Your task to perform on an android device: uninstall "Facebook" Image 0: 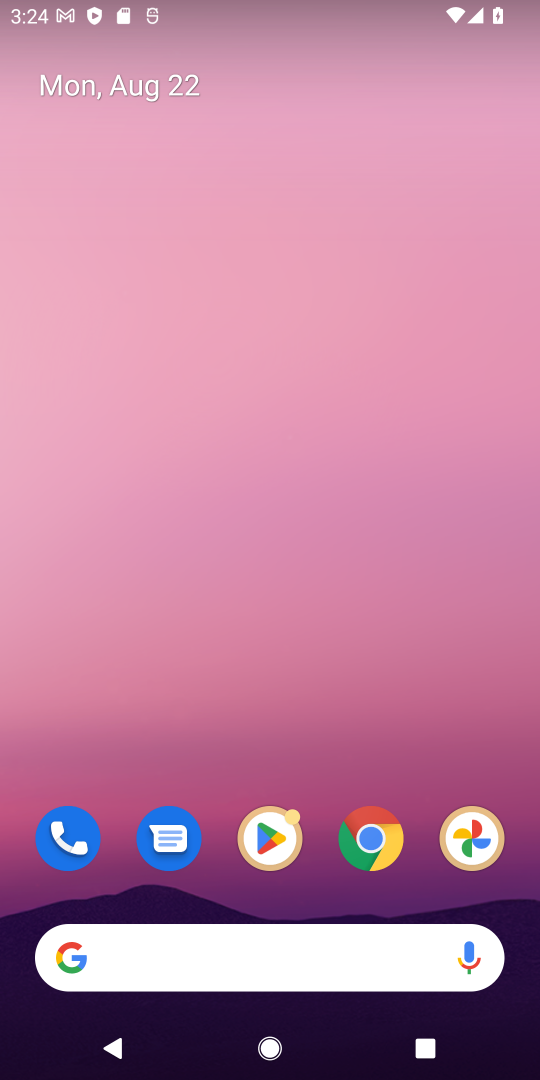
Step 0: click (274, 829)
Your task to perform on an android device: uninstall "Facebook" Image 1: 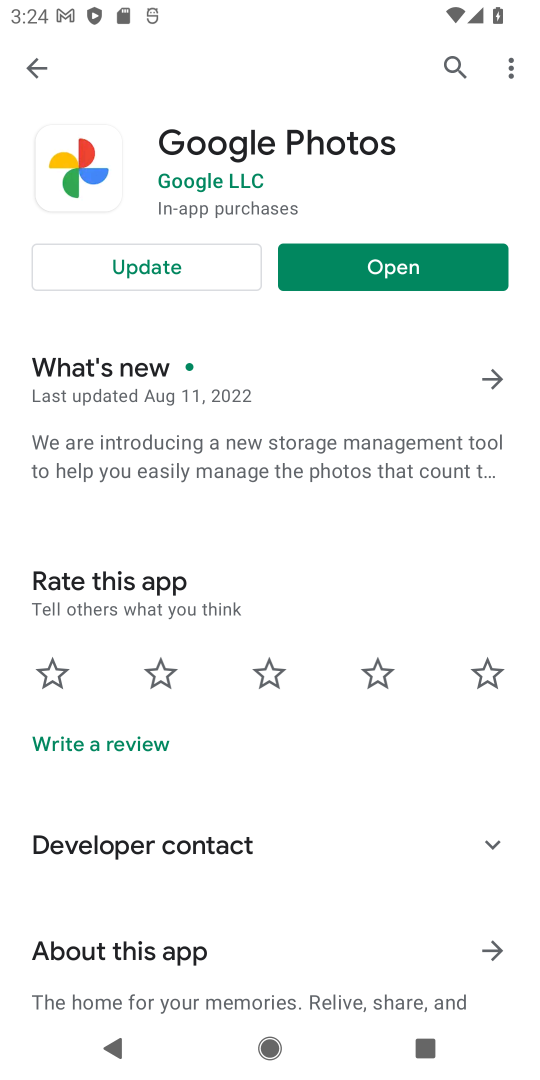
Step 1: click (459, 51)
Your task to perform on an android device: uninstall "Facebook" Image 2: 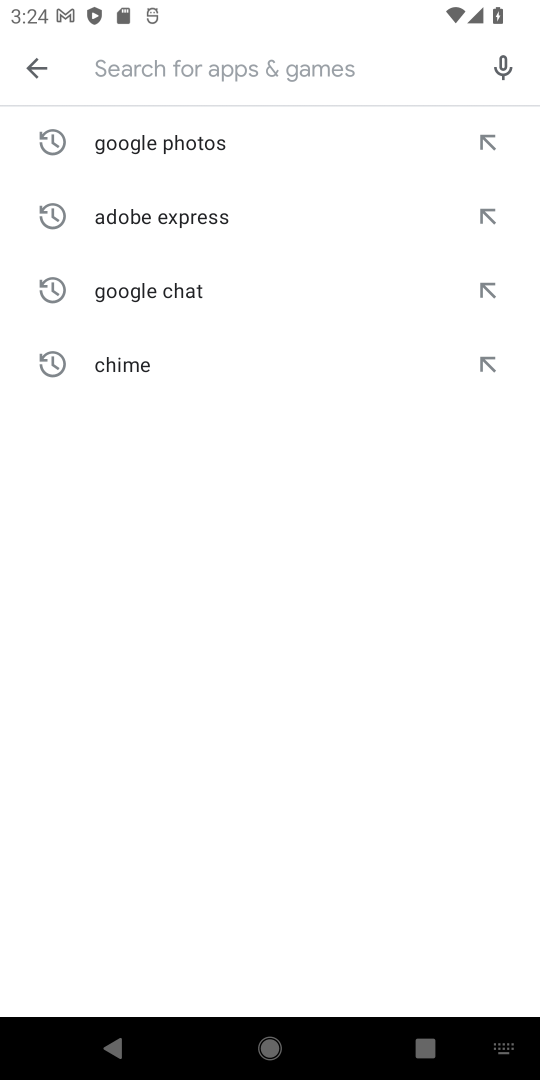
Step 2: click (175, 66)
Your task to perform on an android device: uninstall "Facebook" Image 3: 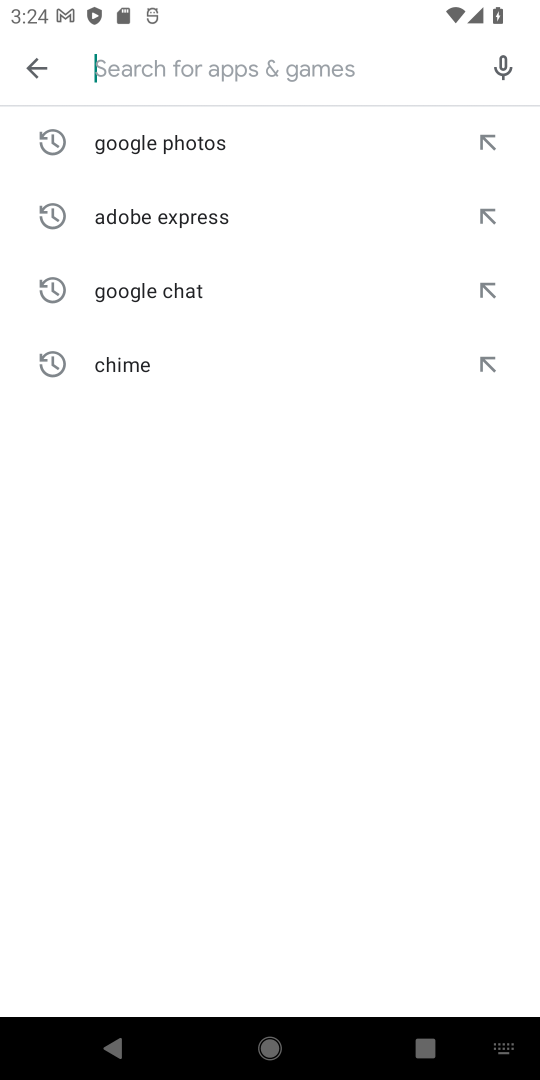
Step 3: type "Facebook"
Your task to perform on an android device: uninstall "Facebook" Image 4: 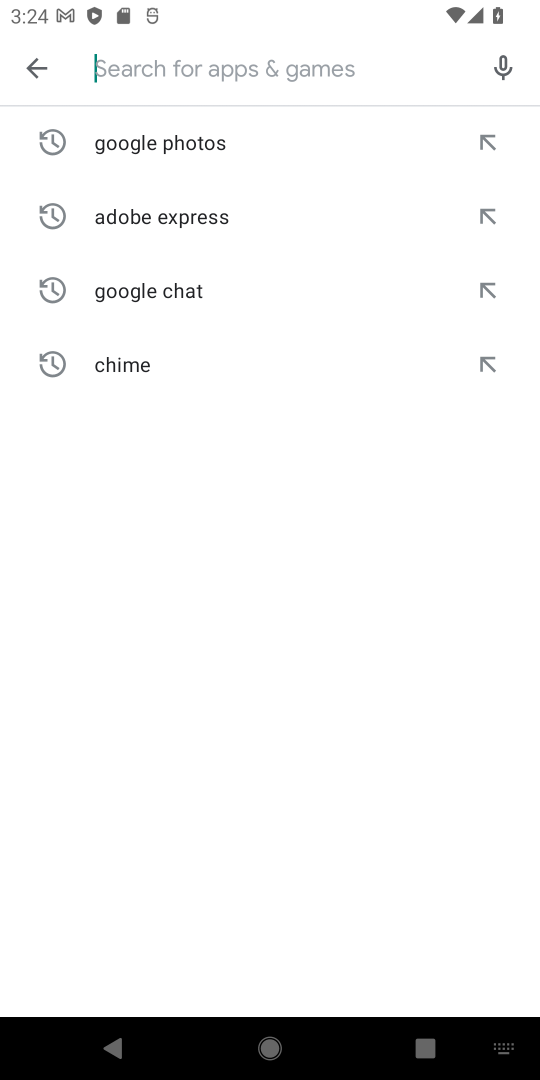
Step 4: click (185, 622)
Your task to perform on an android device: uninstall "Facebook" Image 5: 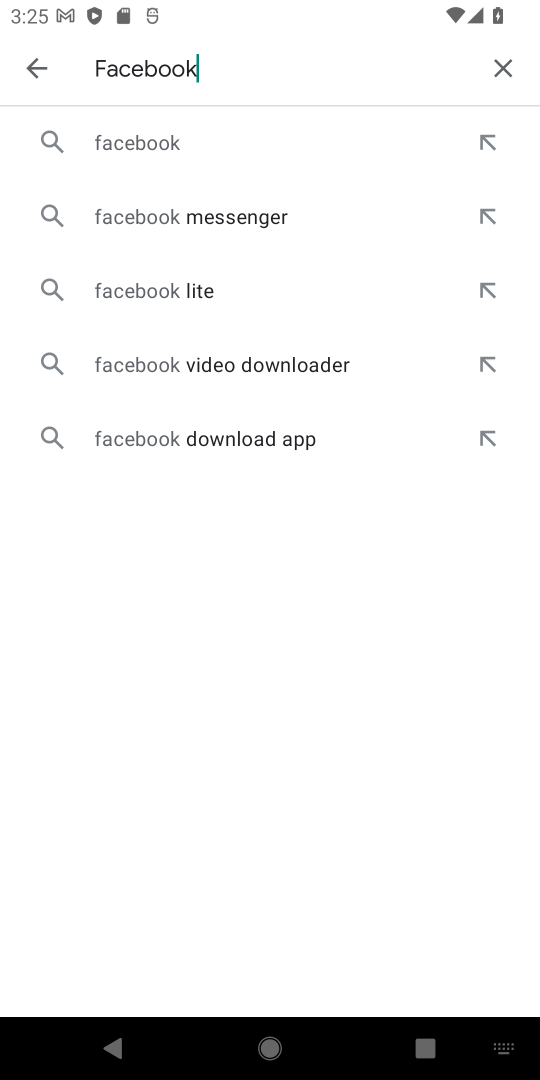
Step 5: click (117, 136)
Your task to perform on an android device: uninstall "Facebook" Image 6: 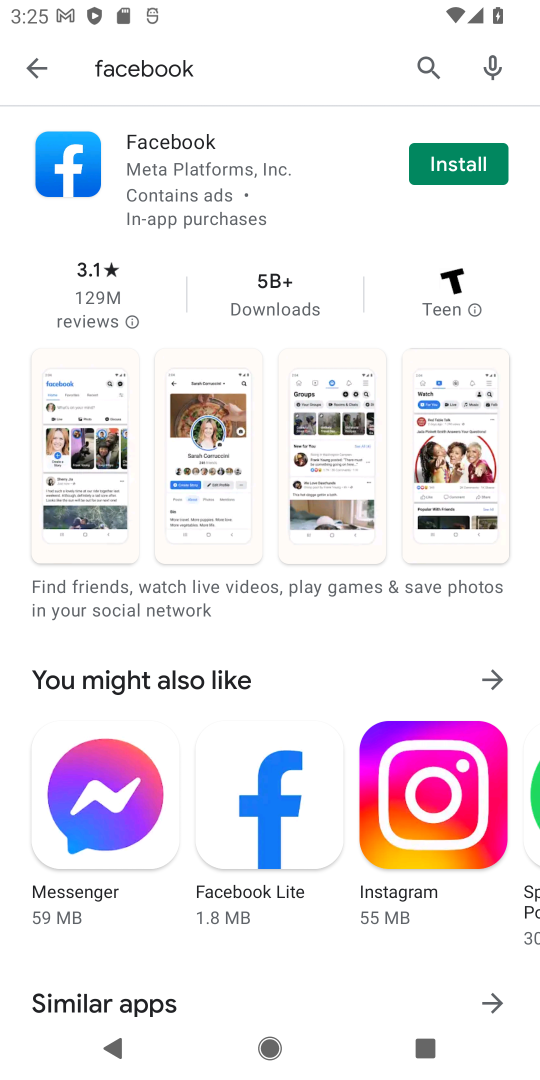
Step 6: click (154, 135)
Your task to perform on an android device: uninstall "Facebook" Image 7: 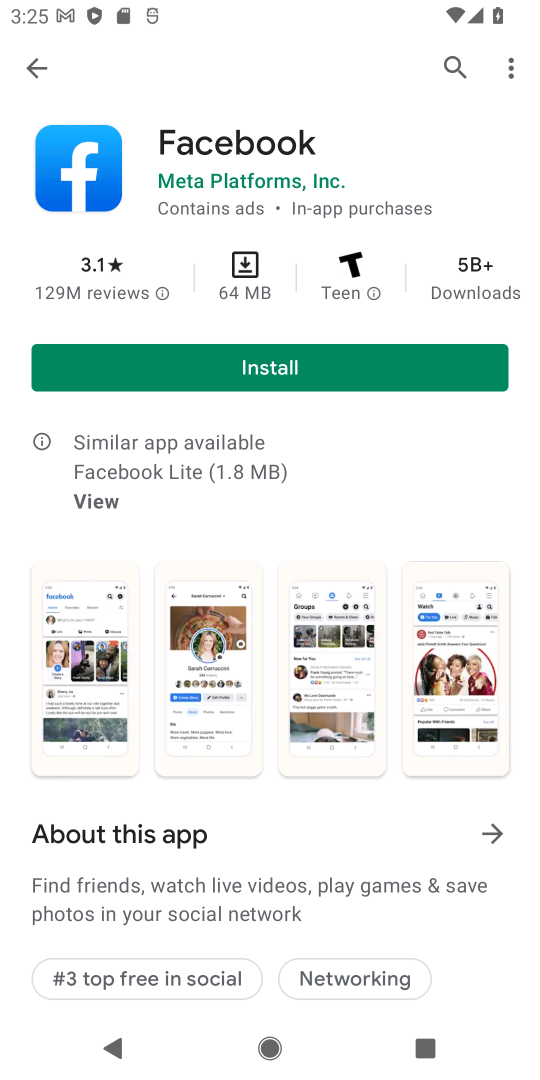
Step 7: task complete